Your task to perform on an android device: Open calendar and show me the first week of next month Image 0: 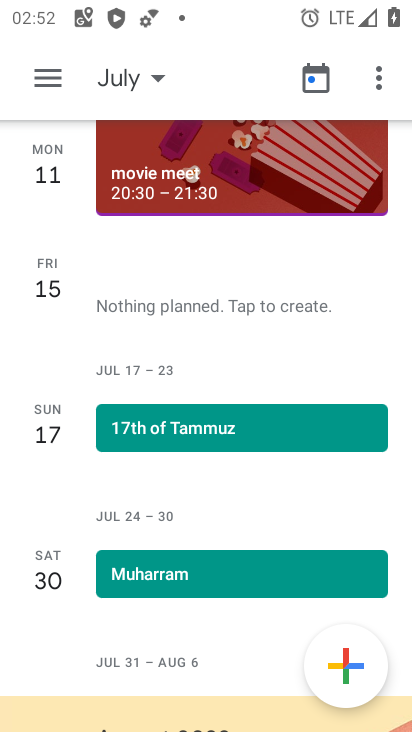
Step 0: press home button
Your task to perform on an android device: Open calendar and show me the first week of next month Image 1: 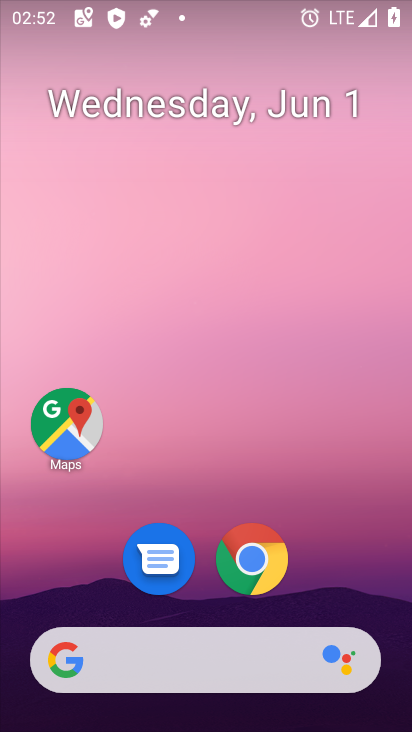
Step 1: drag from (339, 614) to (275, 138)
Your task to perform on an android device: Open calendar and show me the first week of next month Image 2: 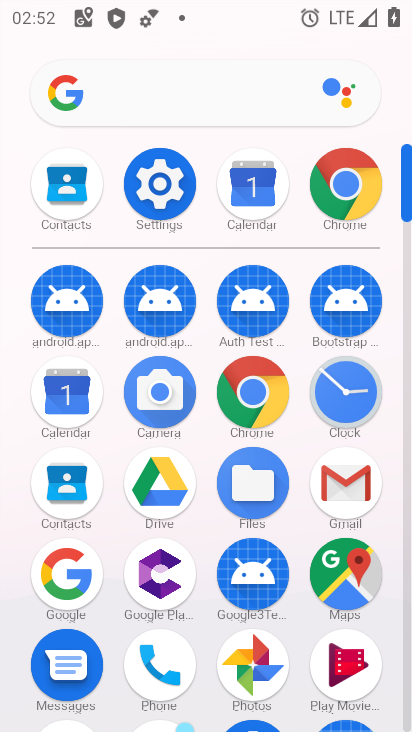
Step 2: click (248, 208)
Your task to perform on an android device: Open calendar and show me the first week of next month Image 3: 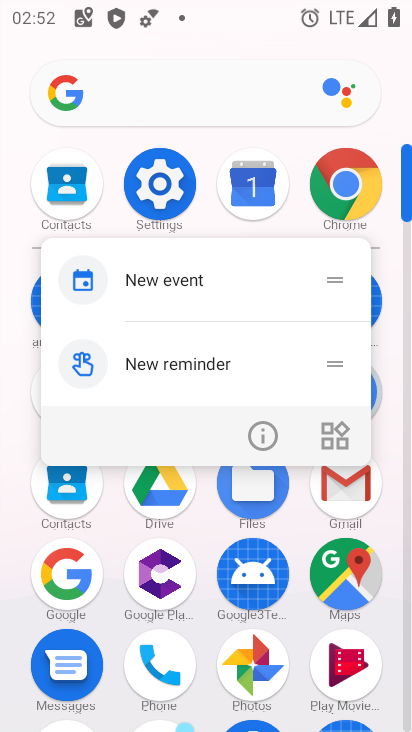
Step 3: click (251, 199)
Your task to perform on an android device: Open calendar and show me the first week of next month Image 4: 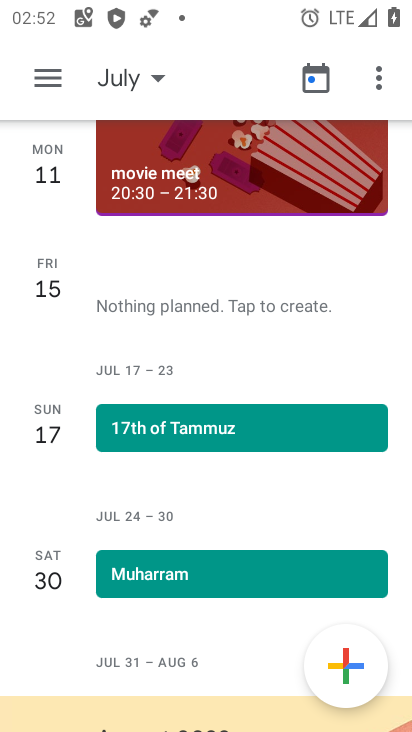
Step 4: click (158, 80)
Your task to perform on an android device: Open calendar and show me the first week of next month Image 5: 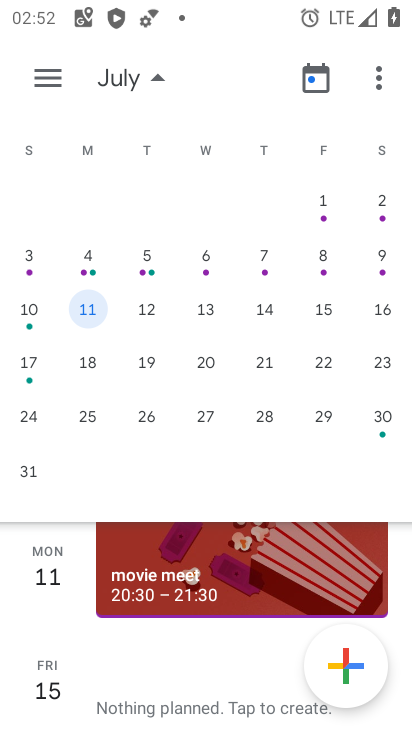
Step 5: click (318, 189)
Your task to perform on an android device: Open calendar and show me the first week of next month Image 6: 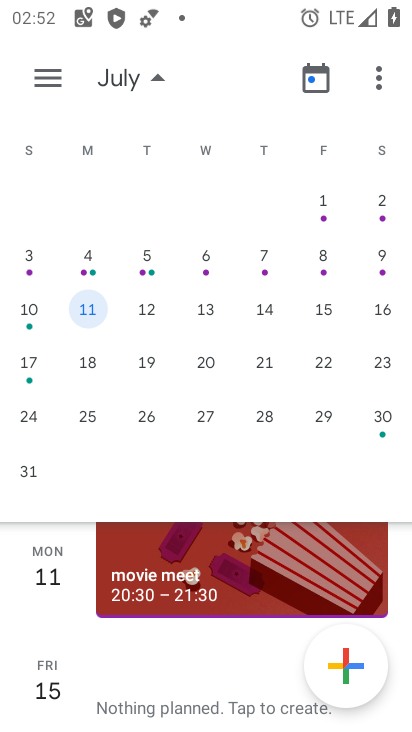
Step 6: click (325, 202)
Your task to perform on an android device: Open calendar and show me the first week of next month Image 7: 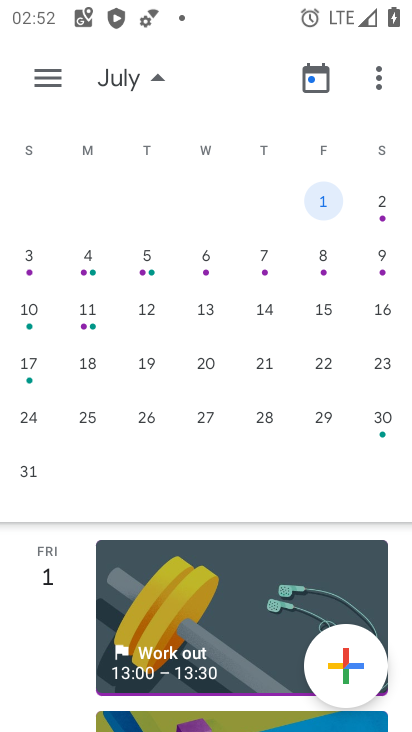
Step 7: task complete